Your task to perform on an android device: Open notification settings Image 0: 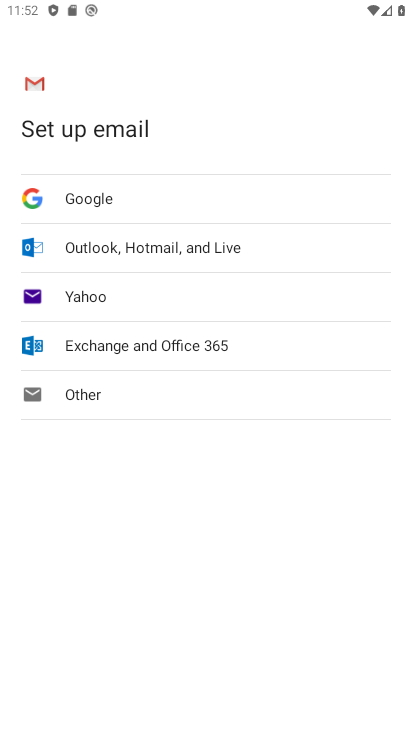
Step 0: press home button
Your task to perform on an android device: Open notification settings Image 1: 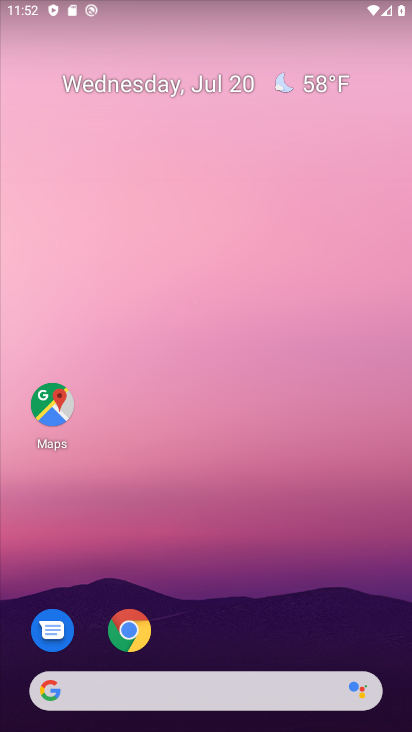
Step 1: drag from (207, 674) to (207, 47)
Your task to perform on an android device: Open notification settings Image 2: 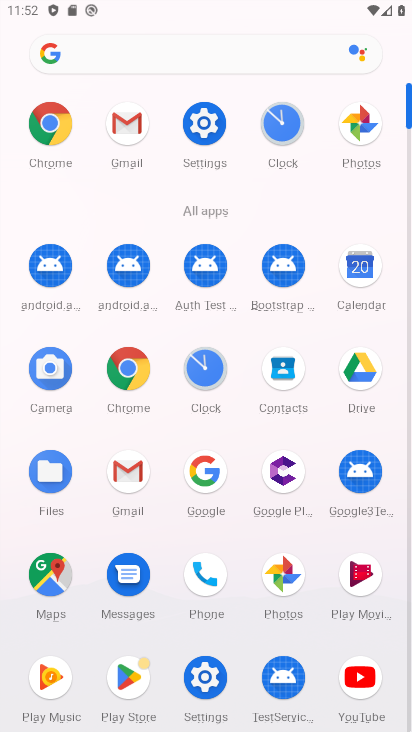
Step 2: click (202, 135)
Your task to perform on an android device: Open notification settings Image 3: 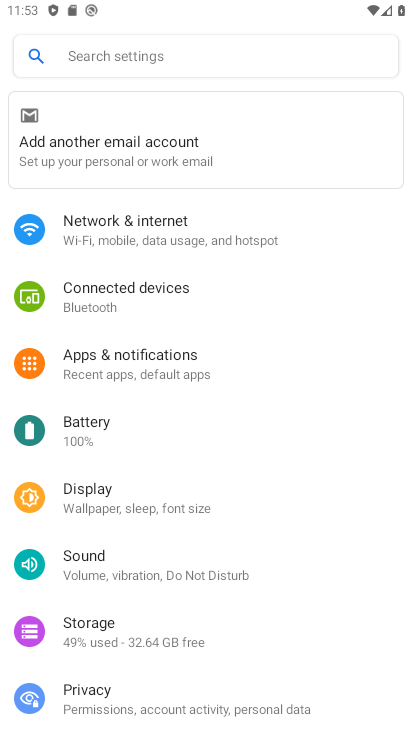
Step 3: click (133, 369)
Your task to perform on an android device: Open notification settings Image 4: 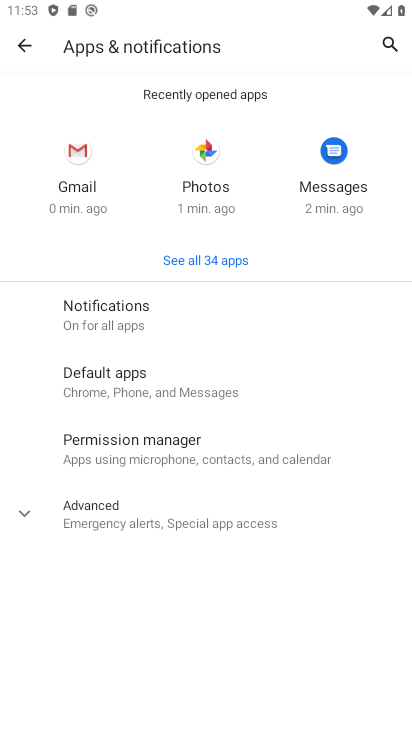
Step 4: task complete